Your task to perform on an android device: Go to ESPN.com Image 0: 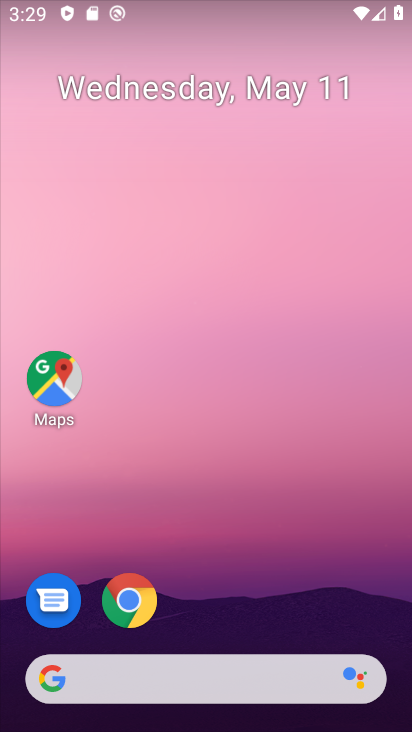
Step 0: drag from (294, 496) to (133, 127)
Your task to perform on an android device: Go to ESPN.com Image 1: 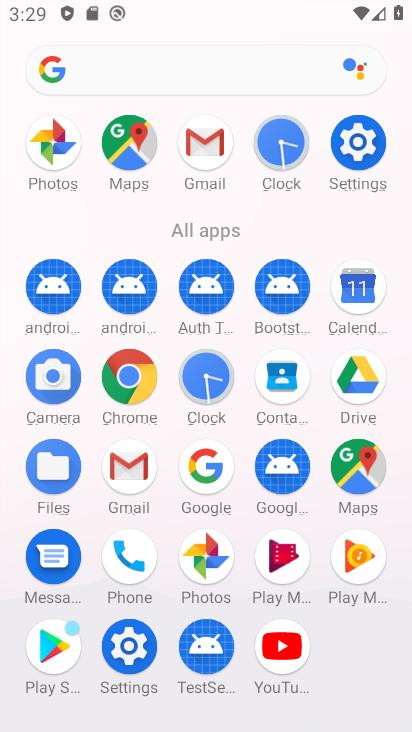
Step 1: click (140, 377)
Your task to perform on an android device: Go to ESPN.com Image 2: 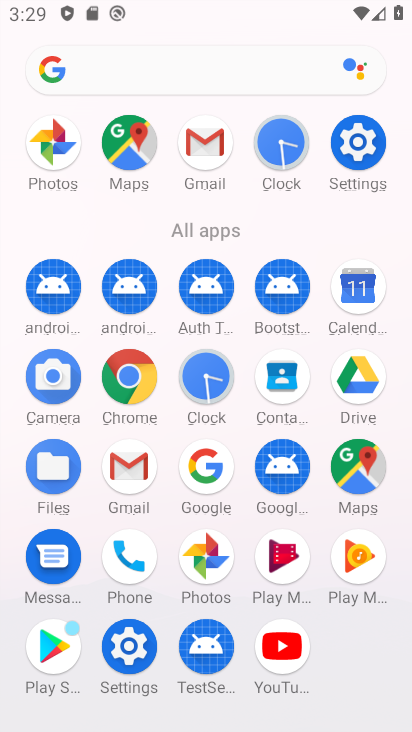
Step 2: click (140, 377)
Your task to perform on an android device: Go to ESPN.com Image 3: 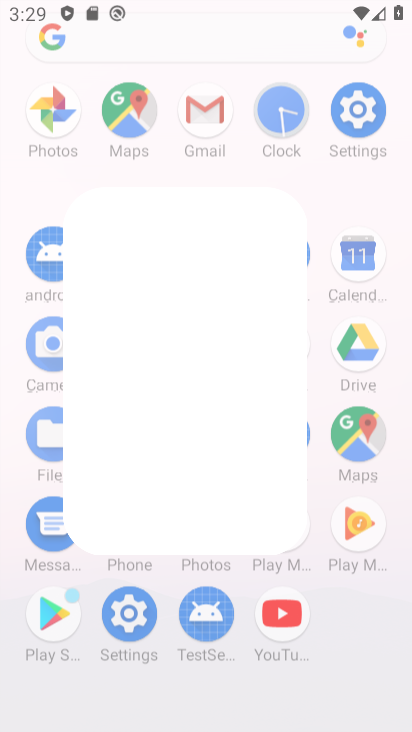
Step 3: click (130, 376)
Your task to perform on an android device: Go to ESPN.com Image 4: 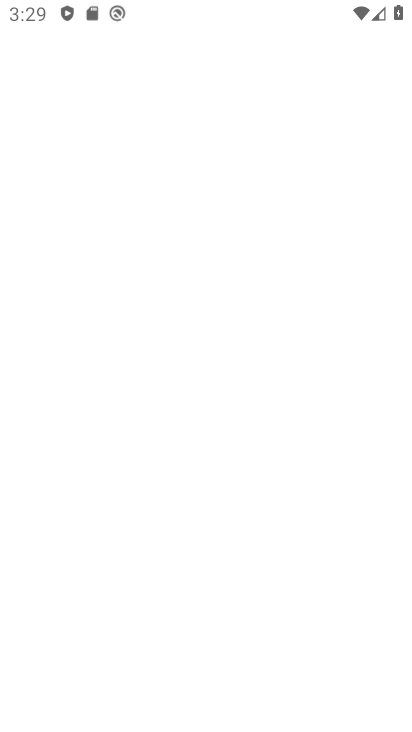
Step 4: click (129, 375)
Your task to perform on an android device: Go to ESPN.com Image 5: 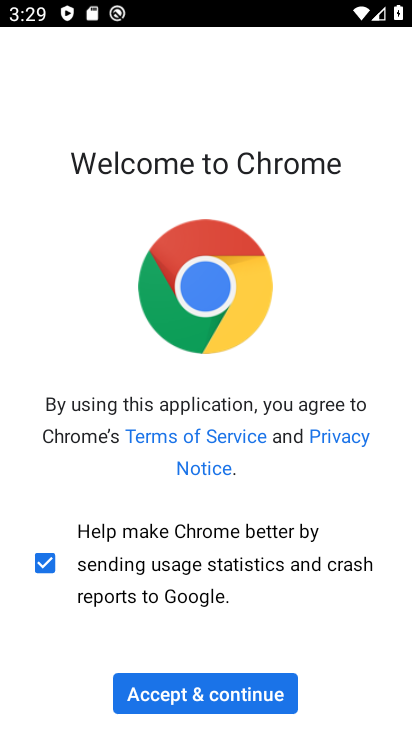
Step 5: click (198, 697)
Your task to perform on an android device: Go to ESPN.com Image 6: 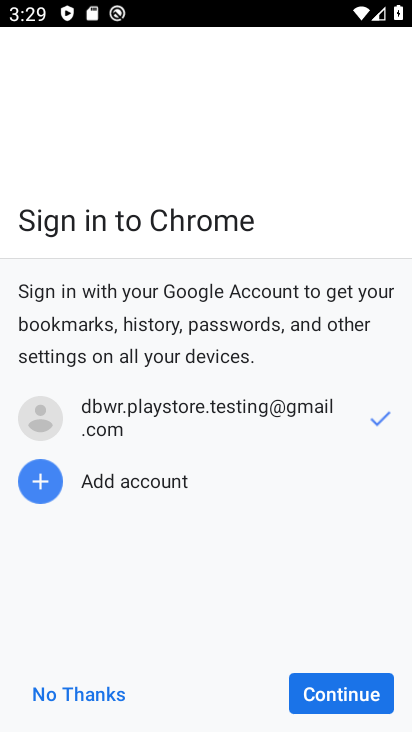
Step 6: click (353, 700)
Your task to perform on an android device: Go to ESPN.com Image 7: 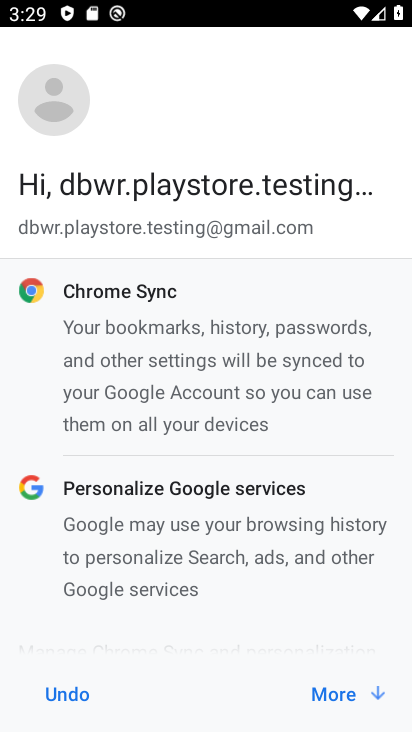
Step 7: click (356, 694)
Your task to perform on an android device: Go to ESPN.com Image 8: 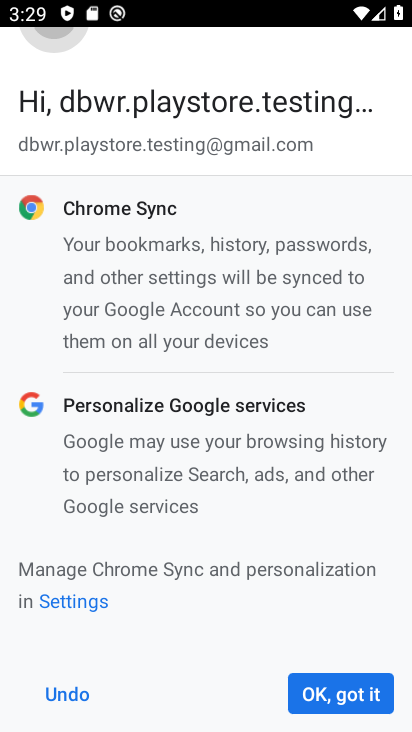
Step 8: click (343, 688)
Your task to perform on an android device: Go to ESPN.com Image 9: 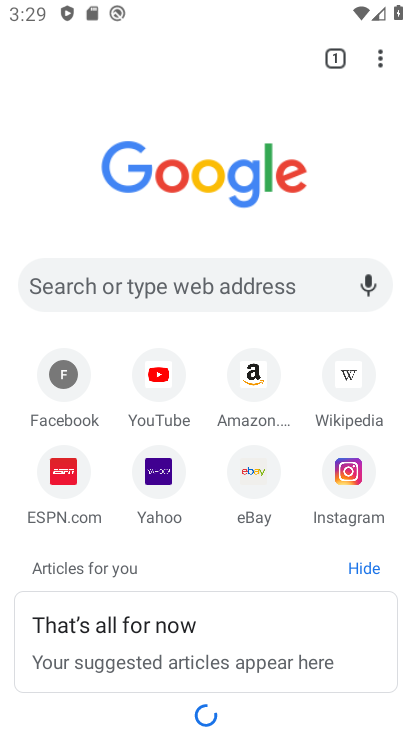
Step 9: click (66, 483)
Your task to perform on an android device: Go to ESPN.com Image 10: 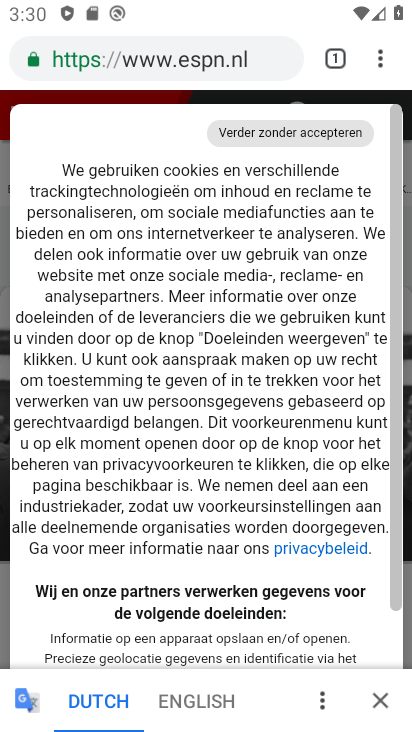
Step 10: task complete